Your task to perform on an android device: turn on airplane mode Image 0: 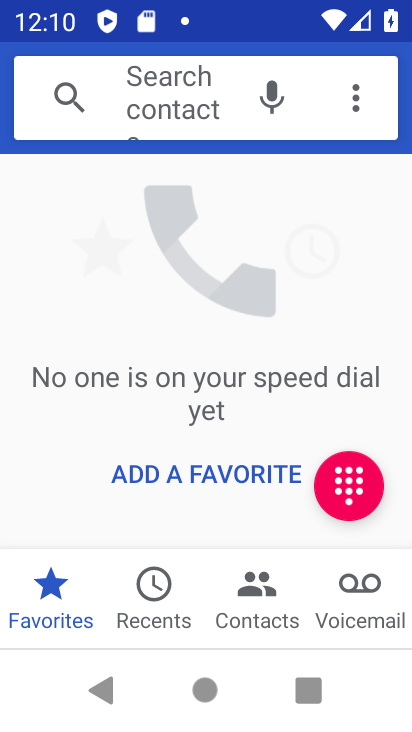
Step 0: press home button
Your task to perform on an android device: turn on airplane mode Image 1: 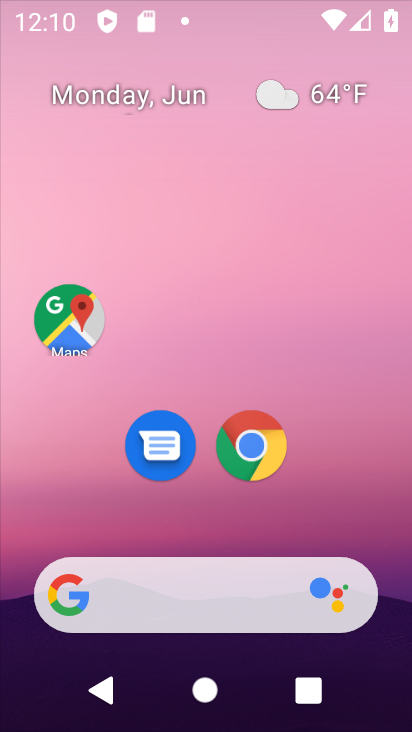
Step 1: drag from (279, 319) to (315, 4)
Your task to perform on an android device: turn on airplane mode Image 2: 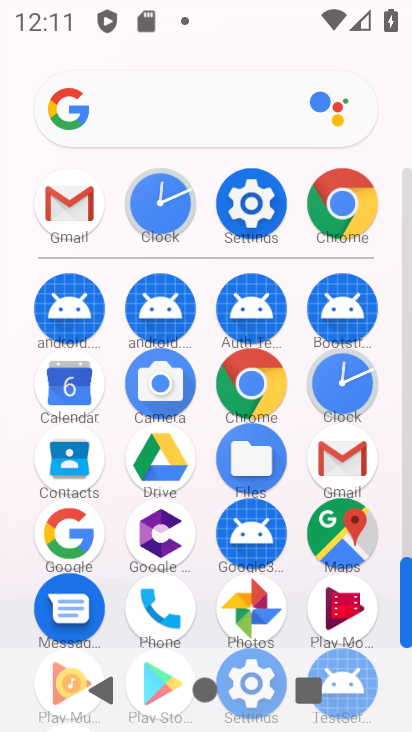
Step 2: click (261, 215)
Your task to perform on an android device: turn on airplane mode Image 3: 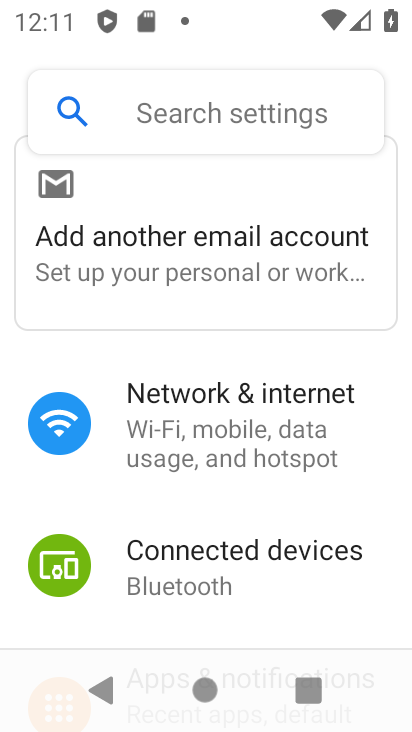
Step 3: click (262, 392)
Your task to perform on an android device: turn on airplane mode Image 4: 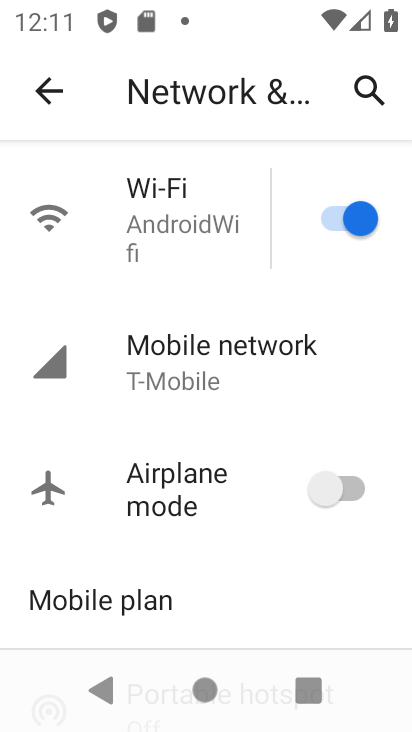
Step 4: click (346, 501)
Your task to perform on an android device: turn on airplane mode Image 5: 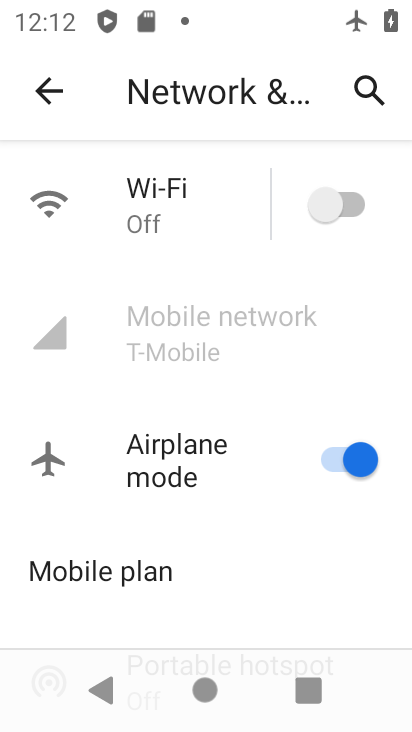
Step 5: task complete